Your task to perform on an android device: Go to display settings Image 0: 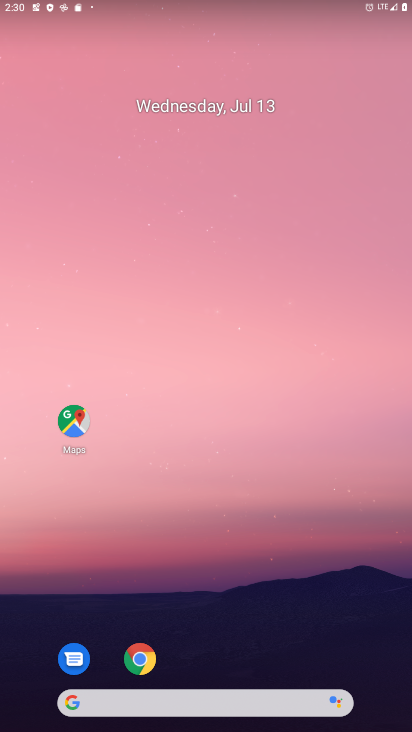
Step 0: drag from (204, 726) to (201, 178)
Your task to perform on an android device: Go to display settings Image 1: 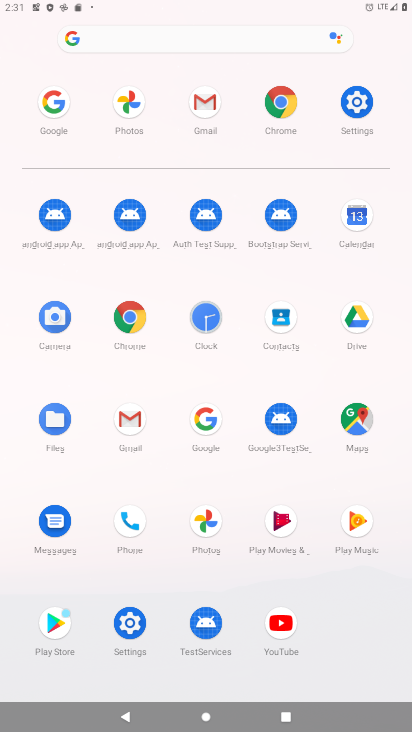
Step 1: click (352, 113)
Your task to perform on an android device: Go to display settings Image 2: 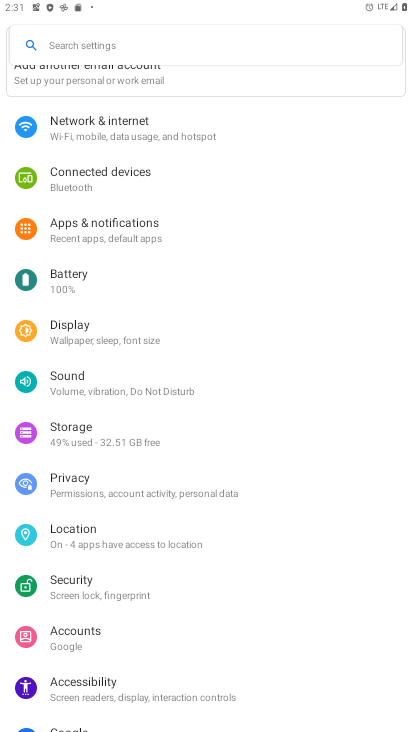
Step 2: click (74, 327)
Your task to perform on an android device: Go to display settings Image 3: 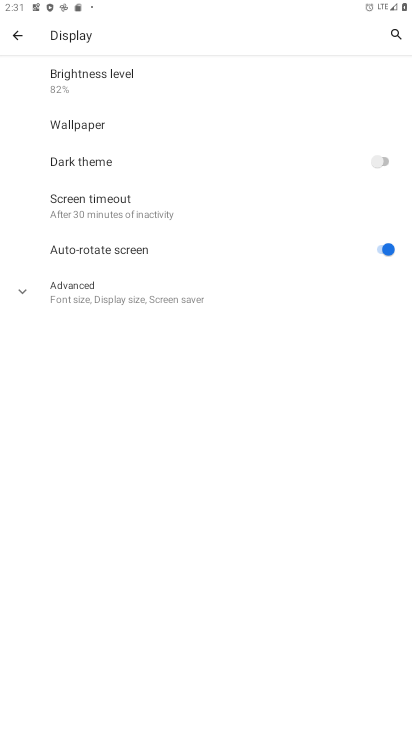
Step 3: task complete